Your task to perform on an android device: Open location settings Image 0: 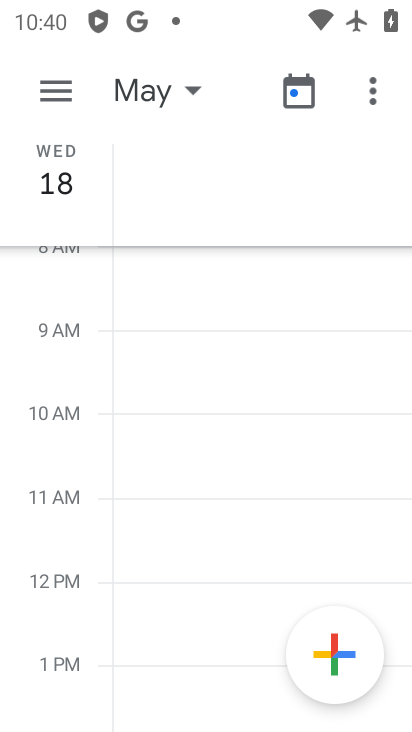
Step 0: press home button
Your task to perform on an android device: Open location settings Image 1: 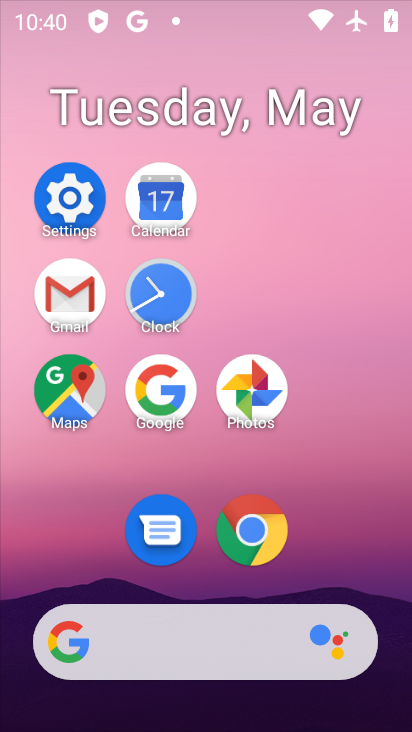
Step 1: click (53, 224)
Your task to perform on an android device: Open location settings Image 2: 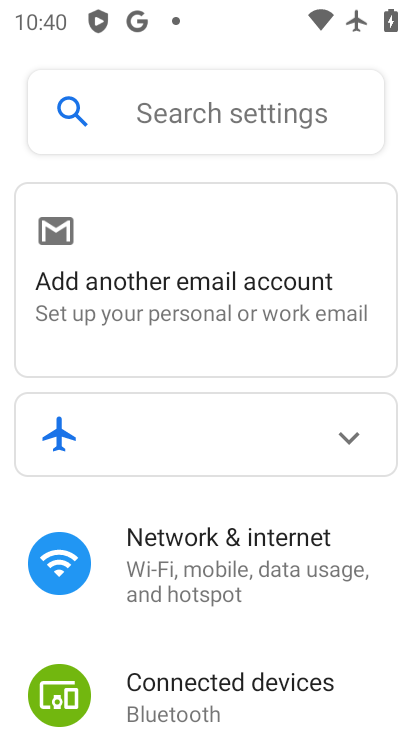
Step 2: drag from (289, 587) to (223, 99)
Your task to perform on an android device: Open location settings Image 3: 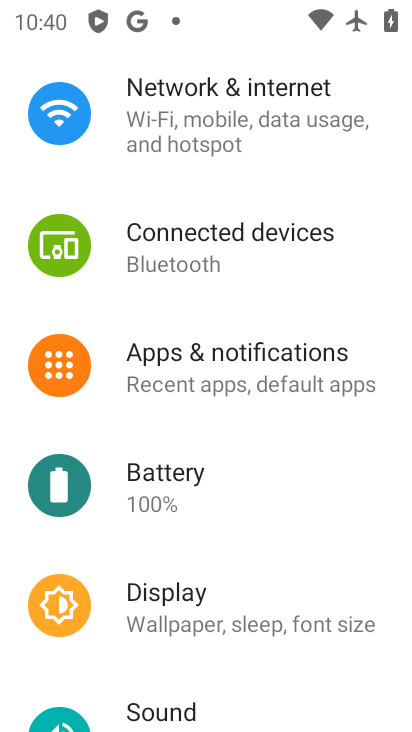
Step 3: drag from (227, 626) to (222, 230)
Your task to perform on an android device: Open location settings Image 4: 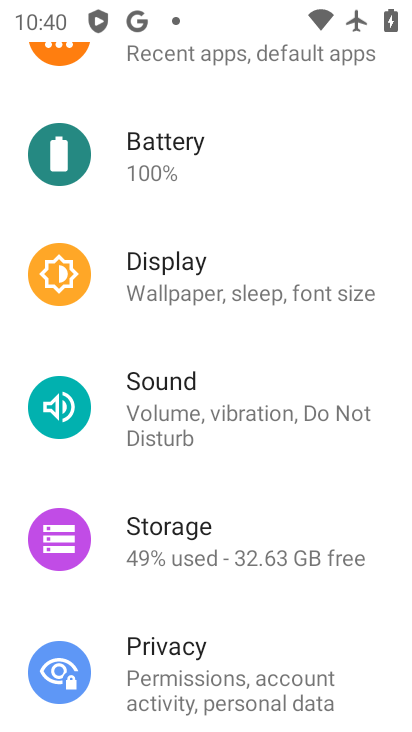
Step 4: drag from (230, 558) to (205, 211)
Your task to perform on an android device: Open location settings Image 5: 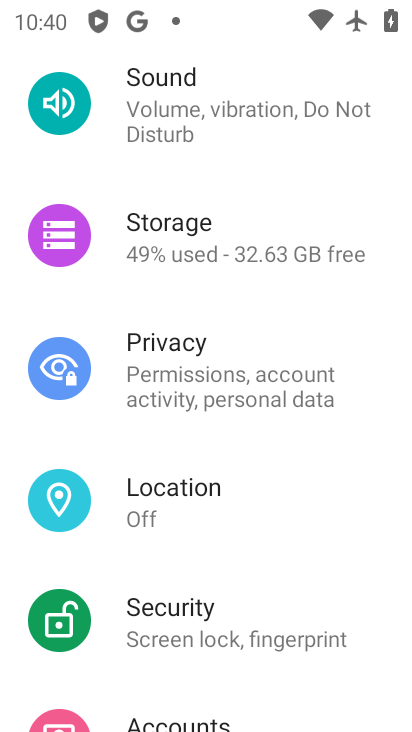
Step 5: click (225, 505)
Your task to perform on an android device: Open location settings Image 6: 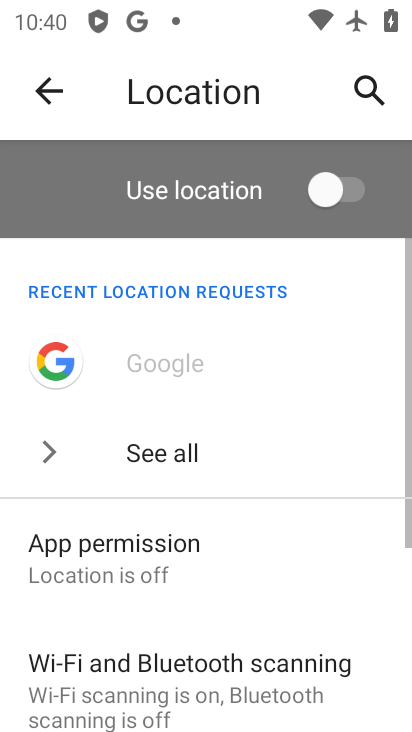
Step 6: task complete